Your task to perform on an android device: add a label to a message in the gmail app Image 0: 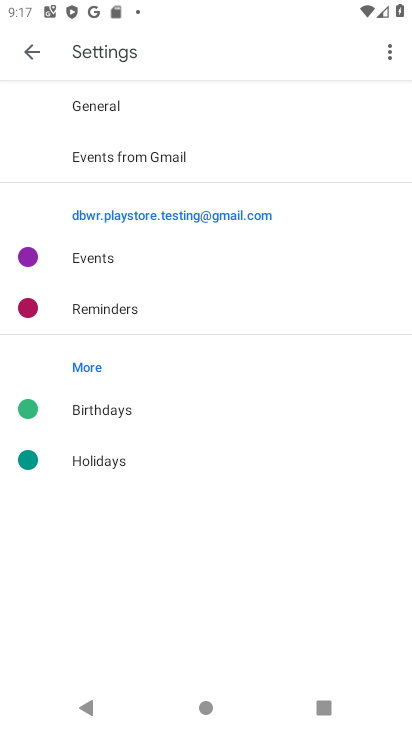
Step 0: press home button
Your task to perform on an android device: add a label to a message in the gmail app Image 1: 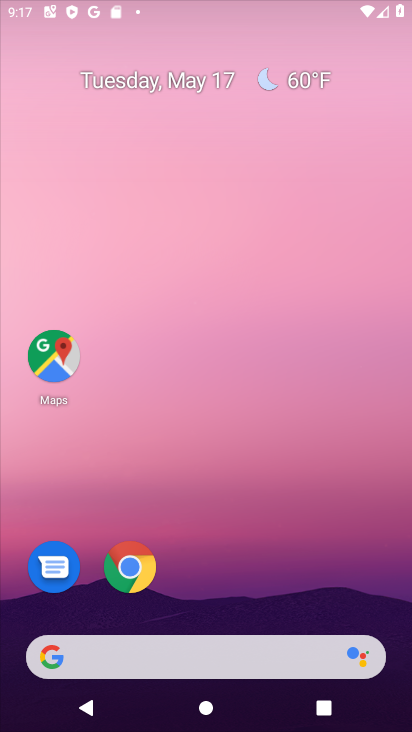
Step 1: drag from (384, 616) to (279, 24)
Your task to perform on an android device: add a label to a message in the gmail app Image 2: 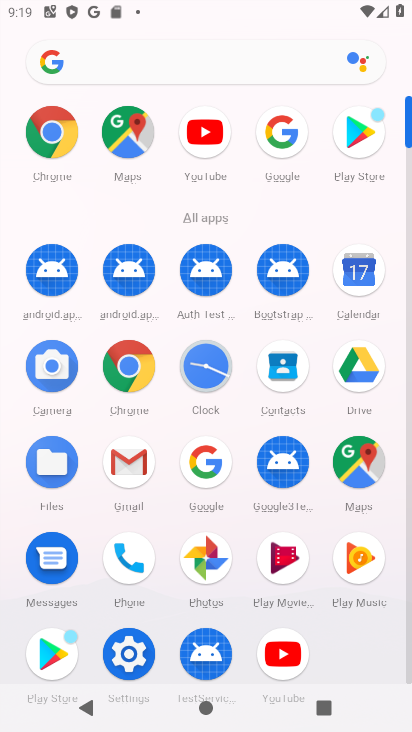
Step 2: click (124, 458)
Your task to perform on an android device: add a label to a message in the gmail app Image 3: 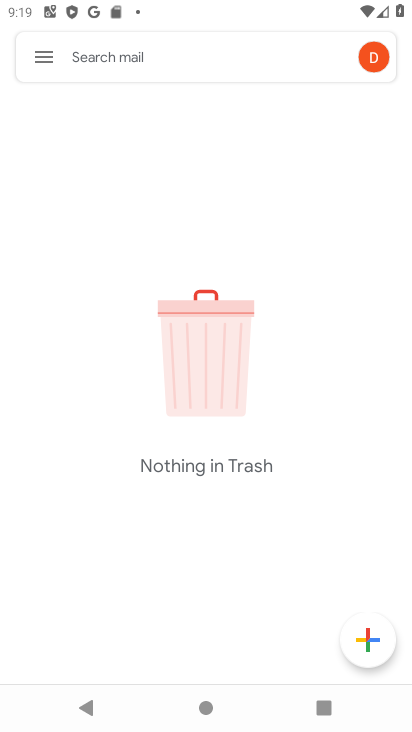
Step 3: task complete